Your task to perform on an android device: toggle show notifications on the lock screen Image 0: 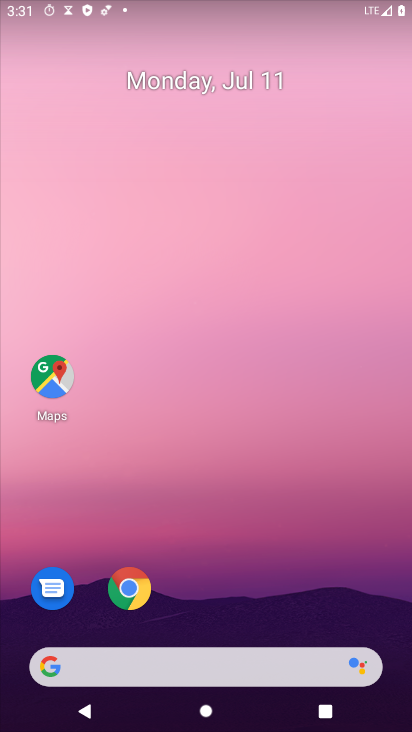
Step 0: drag from (262, 573) to (290, 5)
Your task to perform on an android device: toggle show notifications on the lock screen Image 1: 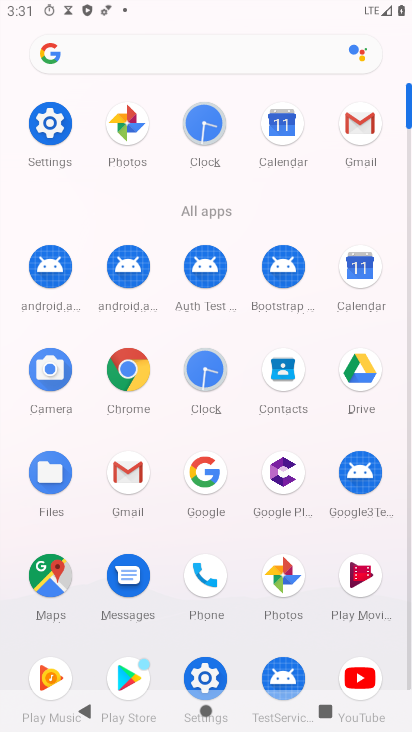
Step 1: click (60, 126)
Your task to perform on an android device: toggle show notifications on the lock screen Image 2: 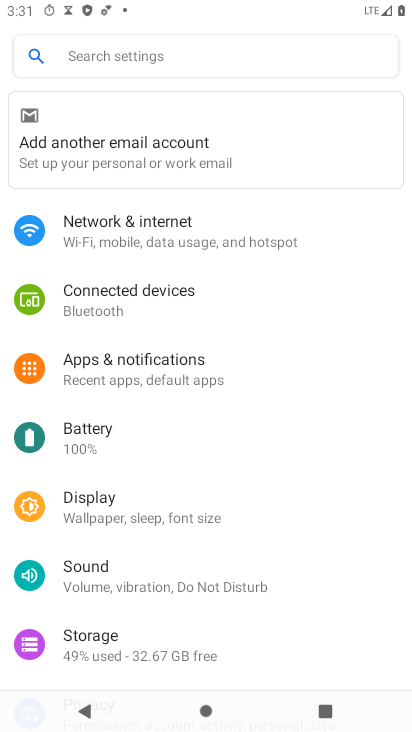
Step 2: click (225, 384)
Your task to perform on an android device: toggle show notifications on the lock screen Image 3: 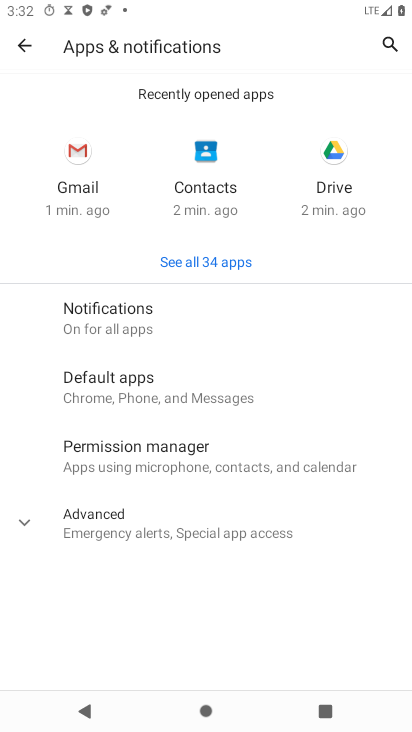
Step 3: click (220, 298)
Your task to perform on an android device: toggle show notifications on the lock screen Image 4: 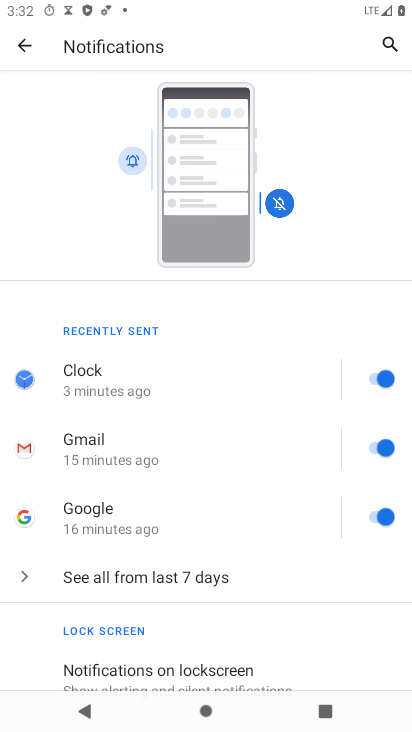
Step 4: drag from (183, 586) to (250, 247)
Your task to perform on an android device: toggle show notifications on the lock screen Image 5: 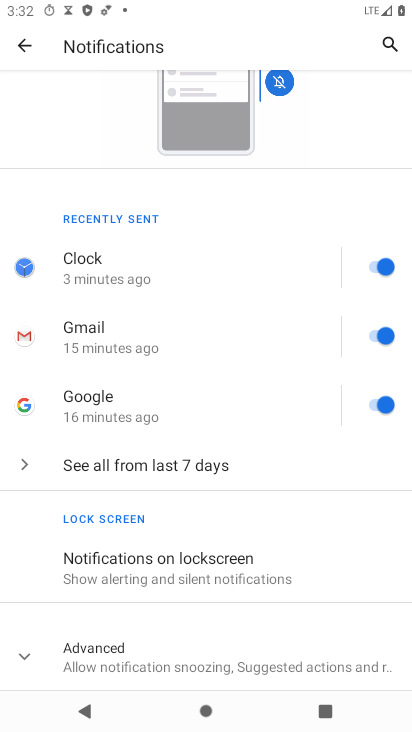
Step 5: click (198, 560)
Your task to perform on an android device: toggle show notifications on the lock screen Image 6: 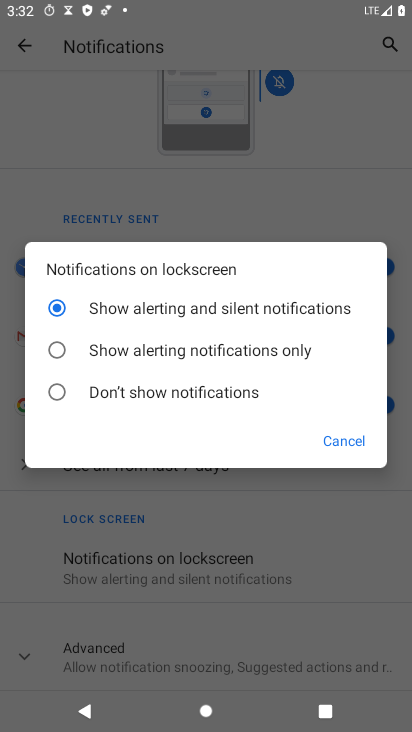
Step 6: click (176, 347)
Your task to perform on an android device: toggle show notifications on the lock screen Image 7: 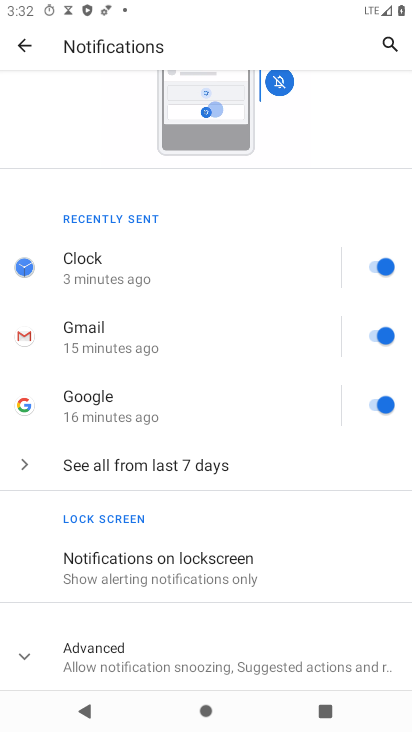
Step 7: task complete